Your task to perform on an android device: toggle translation in the chrome app Image 0: 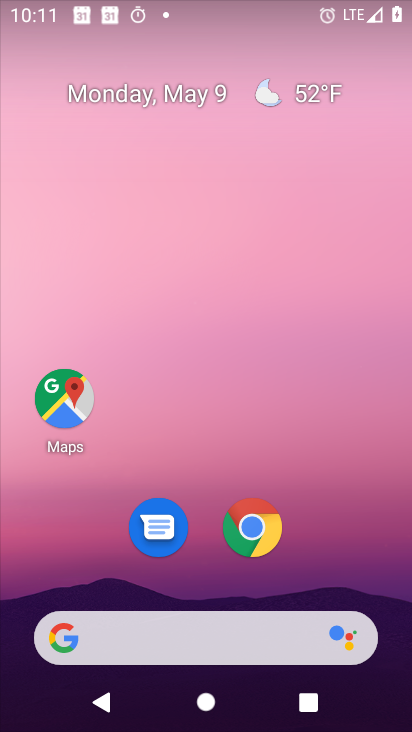
Step 0: click (257, 535)
Your task to perform on an android device: toggle translation in the chrome app Image 1: 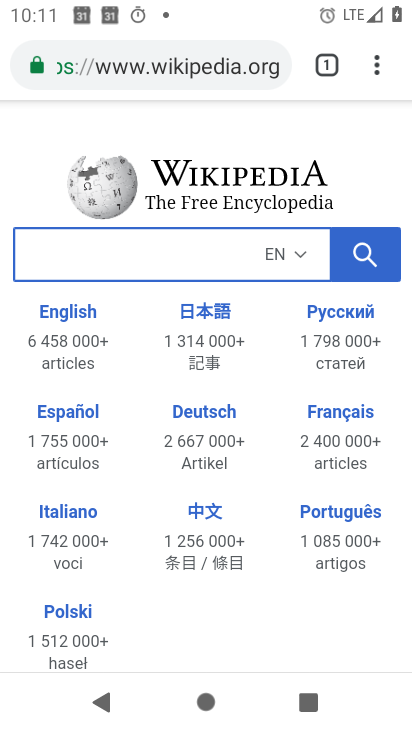
Step 1: click (368, 73)
Your task to perform on an android device: toggle translation in the chrome app Image 2: 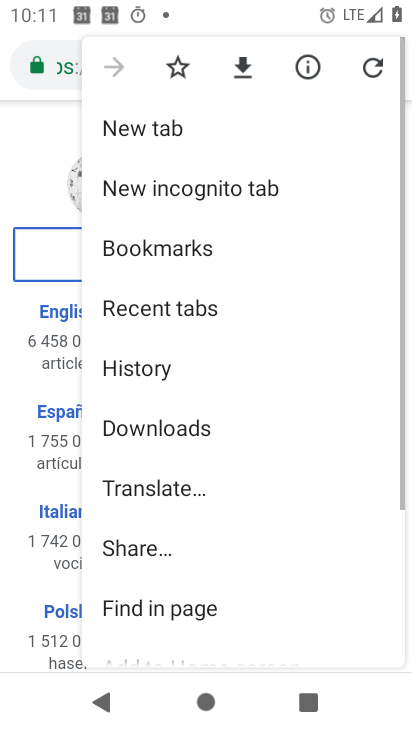
Step 2: drag from (275, 565) to (260, 100)
Your task to perform on an android device: toggle translation in the chrome app Image 3: 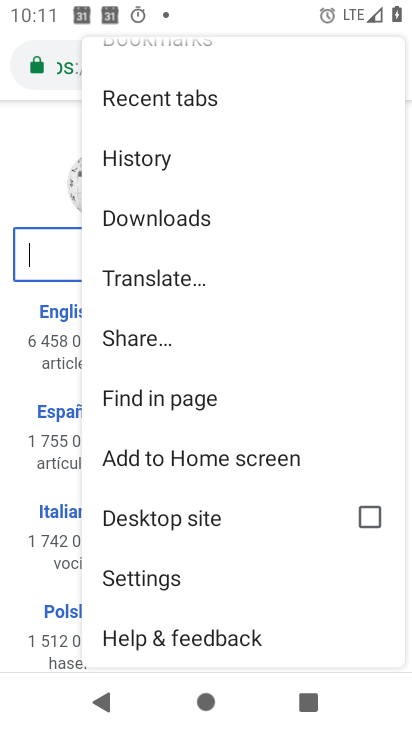
Step 3: click (169, 575)
Your task to perform on an android device: toggle translation in the chrome app Image 4: 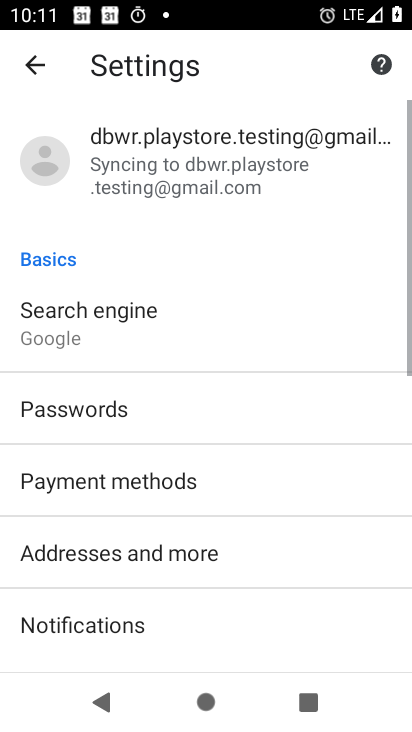
Step 4: drag from (218, 586) to (301, 42)
Your task to perform on an android device: toggle translation in the chrome app Image 5: 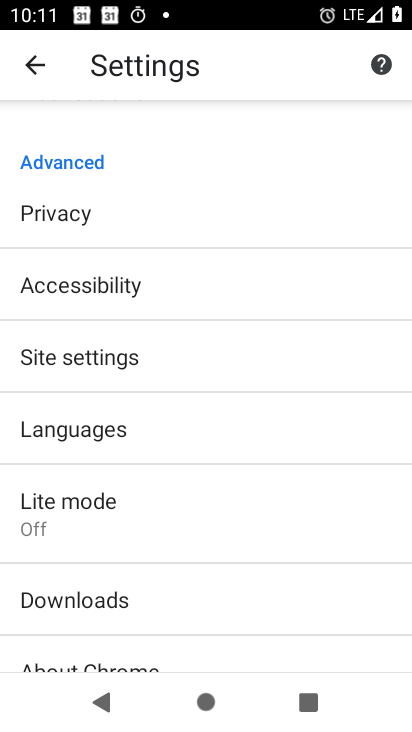
Step 5: click (109, 438)
Your task to perform on an android device: toggle translation in the chrome app Image 6: 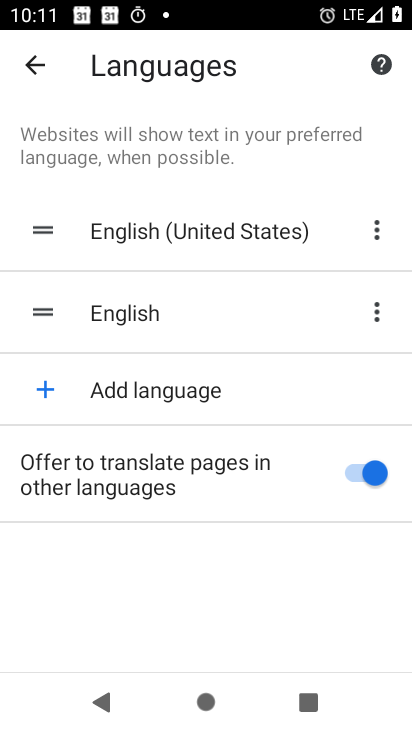
Step 6: click (367, 474)
Your task to perform on an android device: toggle translation in the chrome app Image 7: 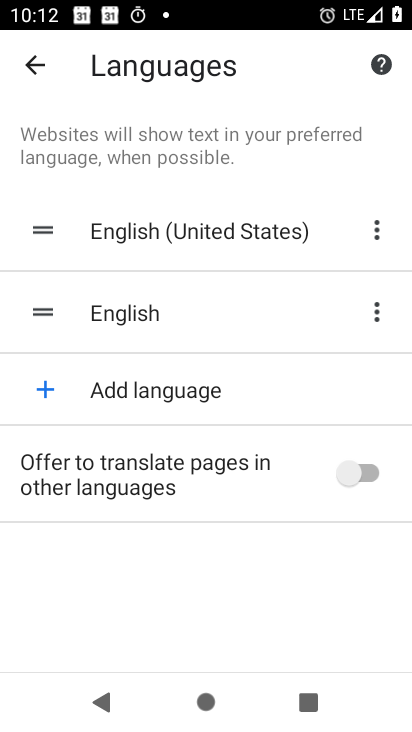
Step 7: task complete